Your task to perform on an android device: turn smart compose on in the gmail app Image 0: 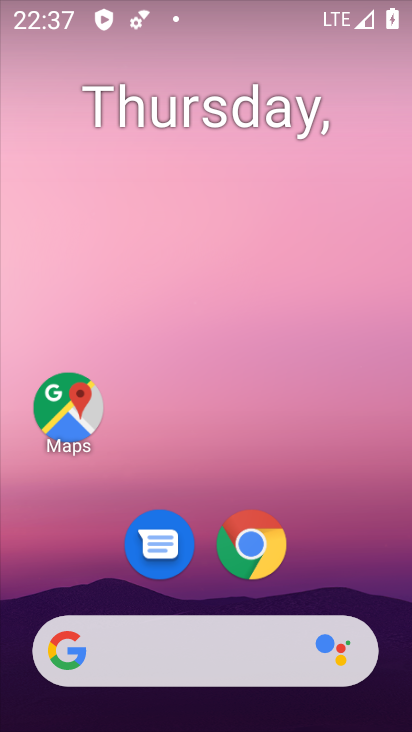
Step 0: drag from (334, 490) to (216, 91)
Your task to perform on an android device: turn smart compose on in the gmail app Image 1: 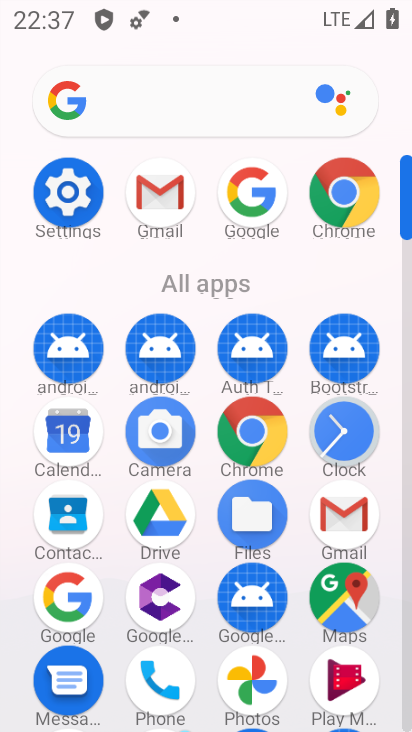
Step 1: click (336, 495)
Your task to perform on an android device: turn smart compose on in the gmail app Image 2: 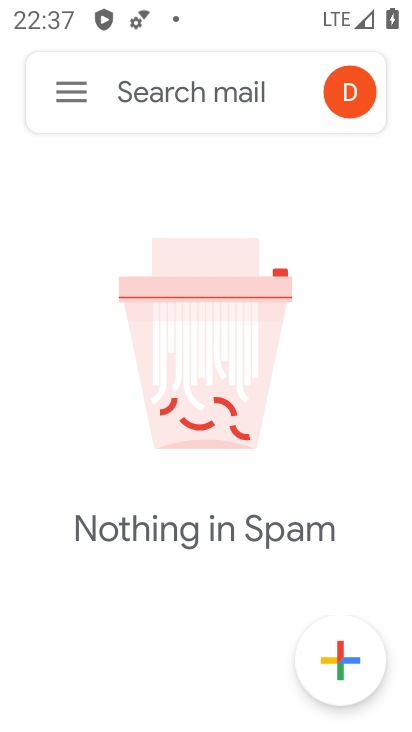
Step 2: click (58, 95)
Your task to perform on an android device: turn smart compose on in the gmail app Image 3: 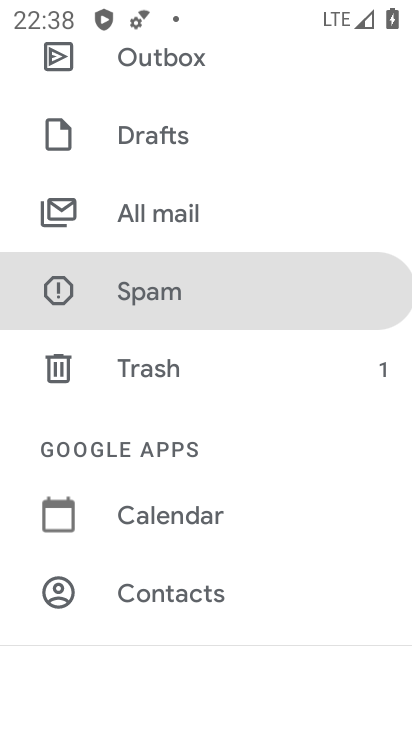
Step 3: drag from (211, 626) to (206, 377)
Your task to perform on an android device: turn smart compose on in the gmail app Image 4: 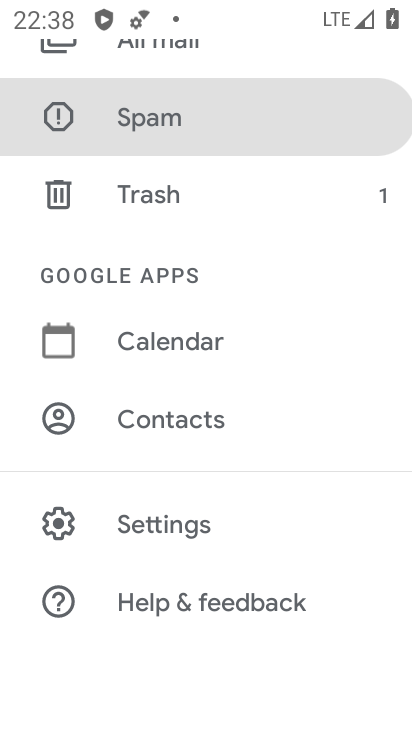
Step 4: click (192, 525)
Your task to perform on an android device: turn smart compose on in the gmail app Image 5: 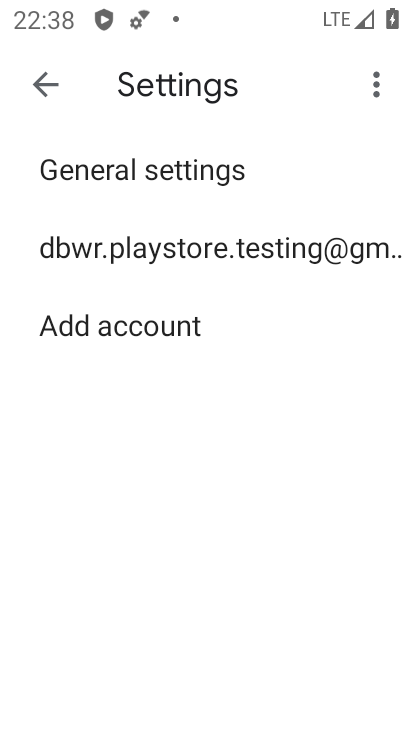
Step 5: click (159, 235)
Your task to perform on an android device: turn smart compose on in the gmail app Image 6: 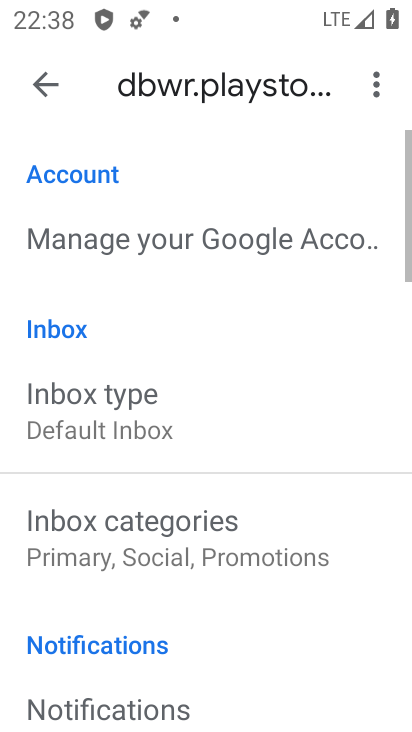
Step 6: task complete